Your task to perform on an android device: Open CNN.com Image 0: 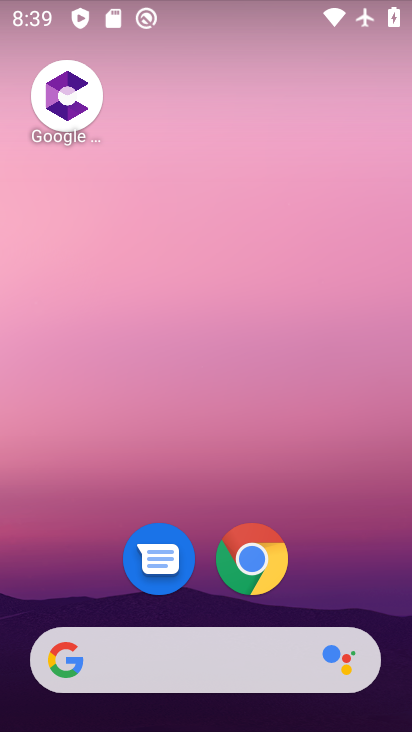
Step 0: click (250, 550)
Your task to perform on an android device: Open CNN.com Image 1: 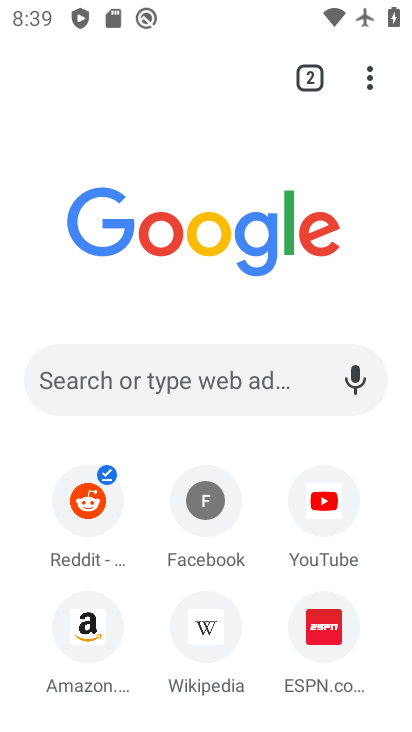
Step 1: click (120, 373)
Your task to perform on an android device: Open CNN.com Image 2: 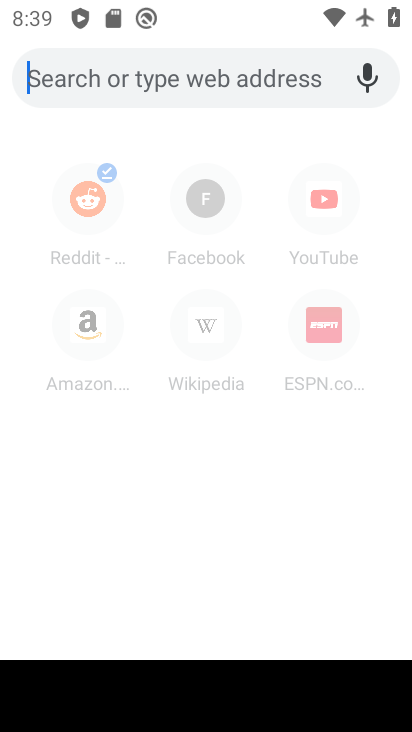
Step 2: type "CNN.com"
Your task to perform on an android device: Open CNN.com Image 3: 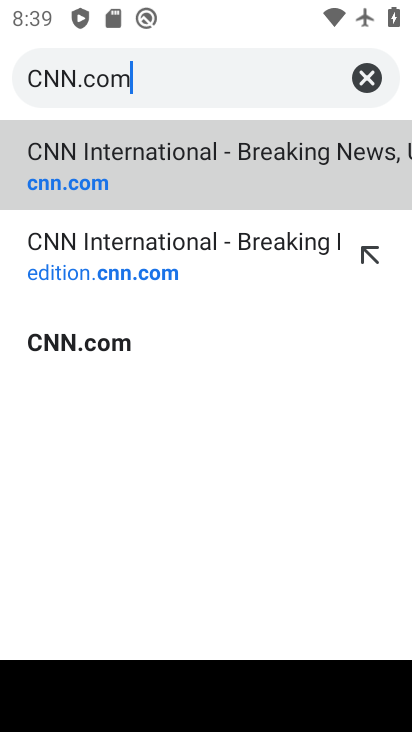
Step 3: click (117, 189)
Your task to perform on an android device: Open CNN.com Image 4: 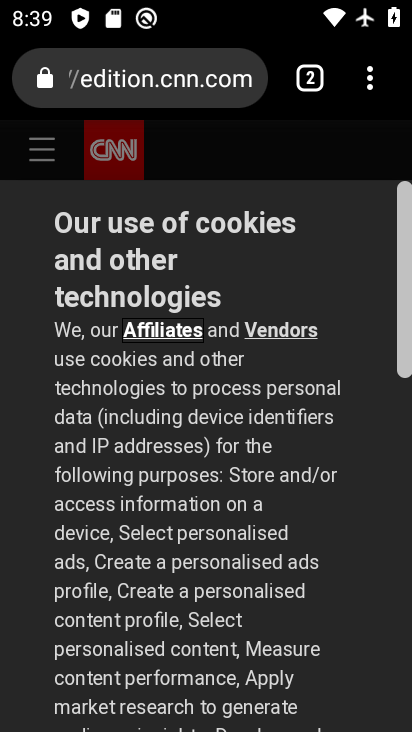
Step 4: task complete